Your task to perform on an android device: Open Google Chrome and click the shortcut for Amazon.com Image 0: 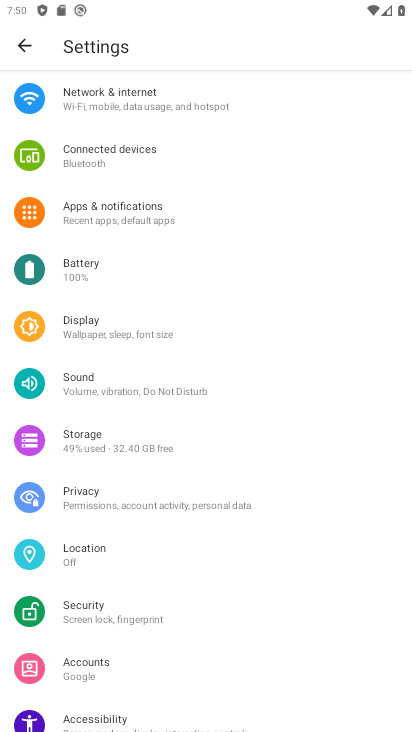
Step 0: press home button
Your task to perform on an android device: Open Google Chrome and click the shortcut for Amazon.com Image 1: 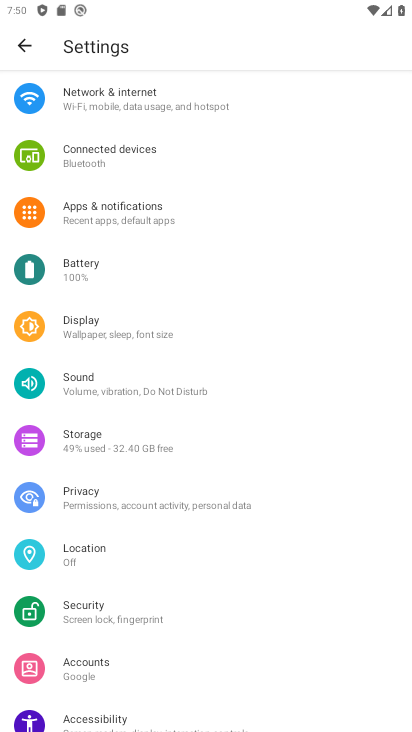
Step 1: press home button
Your task to perform on an android device: Open Google Chrome and click the shortcut for Amazon.com Image 2: 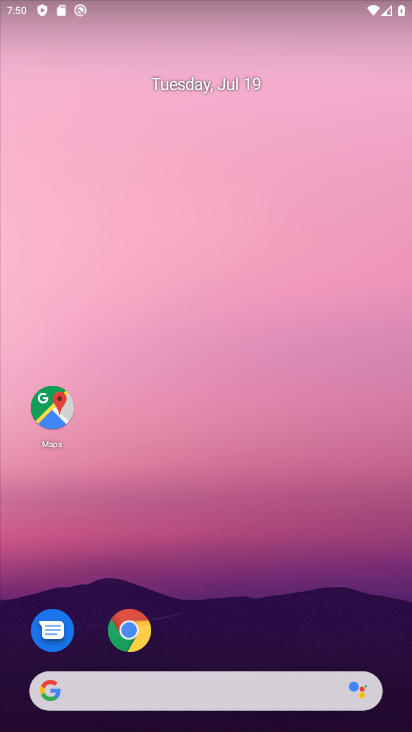
Step 2: drag from (298, 661) to (262, 134)
Your task to perform on an android device: Open Google Chrome and click the shortcut for Amazon.com Image 3: 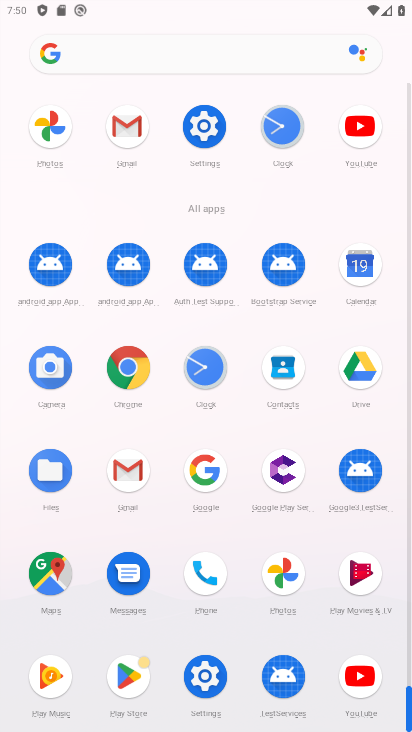
Step 3: click (123, 375)
Your task to perform on an android device: Open Google Chrome and click the shortcut for Amazon.com Image 4: 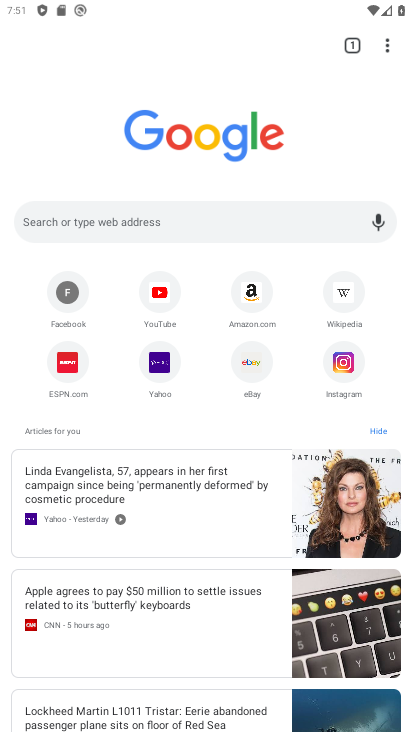
Step 4: click (270, 295)
Your task to perform on an android device: Open Google Chrome and click the shortcut for Amazon.com Image 5: 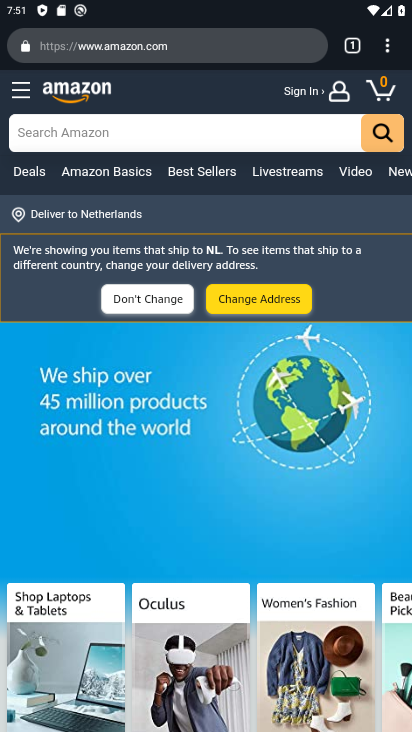
Step 5: task complete